Your task to perform on an android device: turn off notifications settings in the gmail app Image 0: 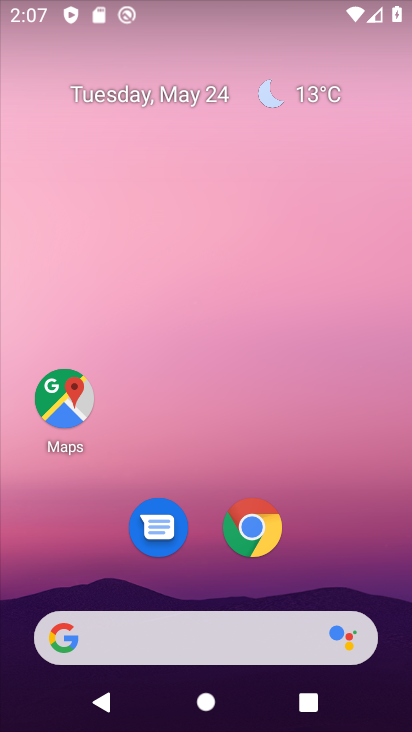
Step 0: drag from (204, 569) to (200, 193)
Your task to perform on an android device: turn off notifications settings in the gmail app Image 1: 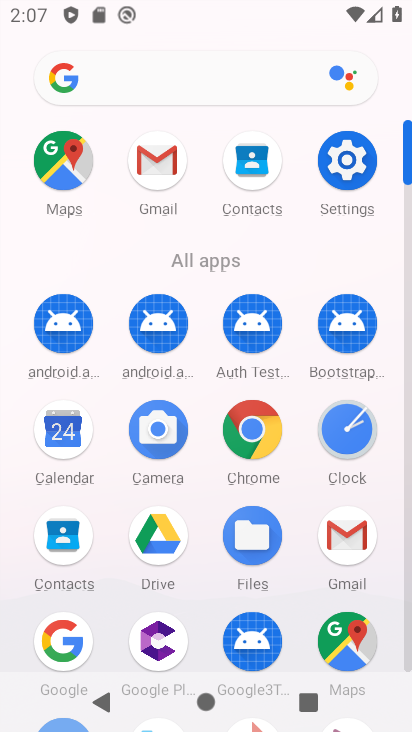
Step 1: click (336, 527)
Your task to perform on an android device: turn off notifications settings in the gmail app Image 2: 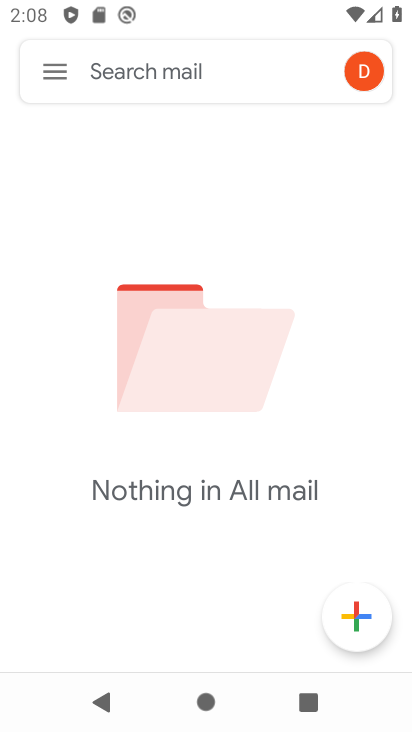
Step 2: click (55, 72)
Your task to perform on an android device: turn off notifications settings in the gmail app Image 3: 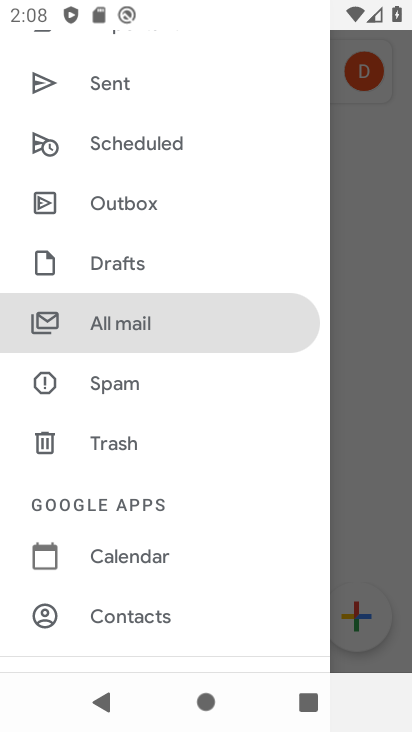
Step 3: drag from (158, 590) to (180, 277)
Your task to perform on an android device: turn off notifications settings in the gmail app Image 4: 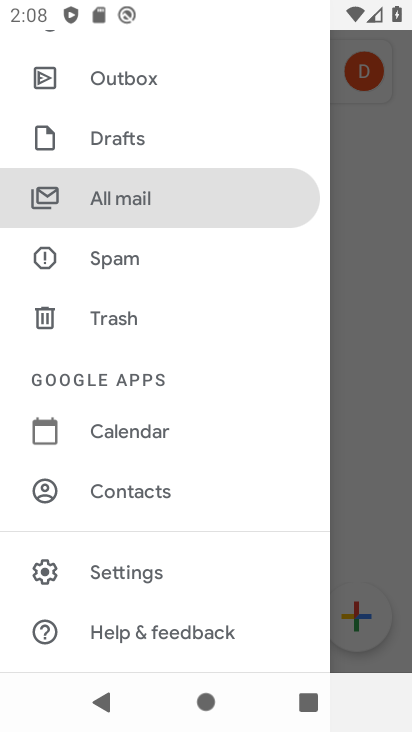
Step 4: click (117, 557)
Your task to perform on an android device: turn off notifications settings in the gmail app Image 5: 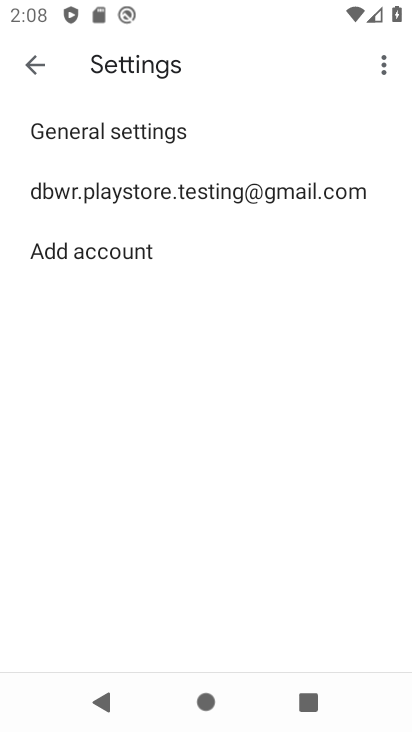
Step 5: click (169, 186)
Your task to perform on an android device: turn off notifications settings in the gmail app Image 6: 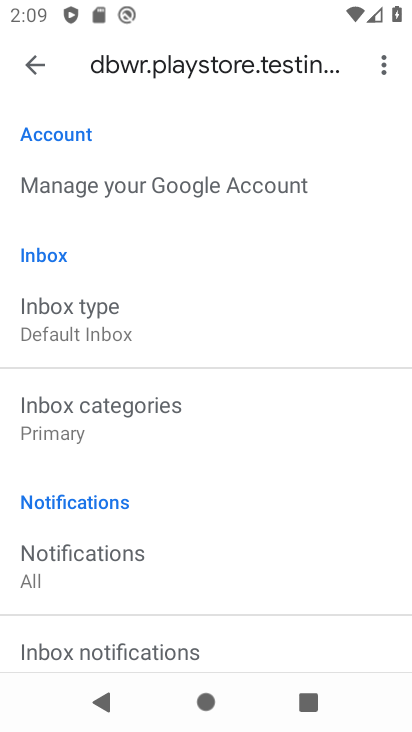
Step 6: drag from (134, 532) to (156, 221)
Your task to perform on an android device: turn off notifications settings in the gmail app Image 7: 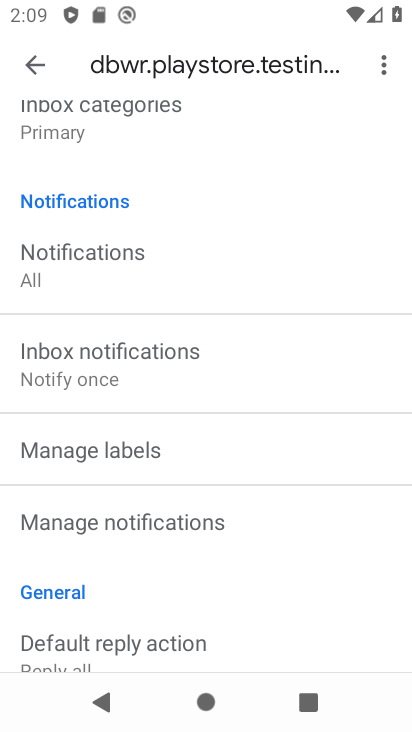
Step 7: drag from (131, 530) to (136, 438)
Your task to perform on an android device: turn off notifications settings in the gmail app Image 8: 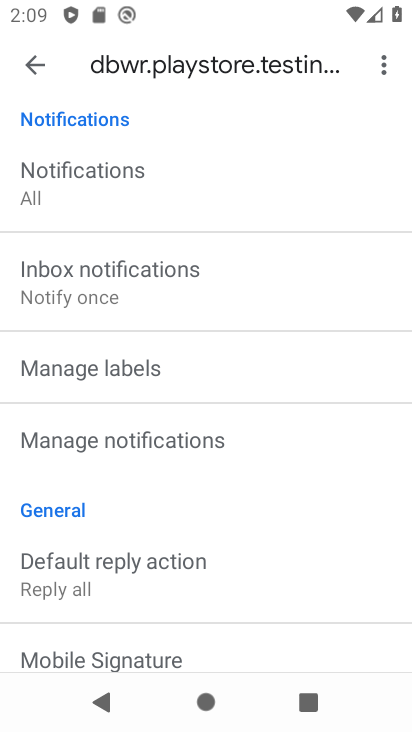
Step 8: click (111, 440)
Your task to perform on an android device: turn off notifications settings in the gmail app Image 9: 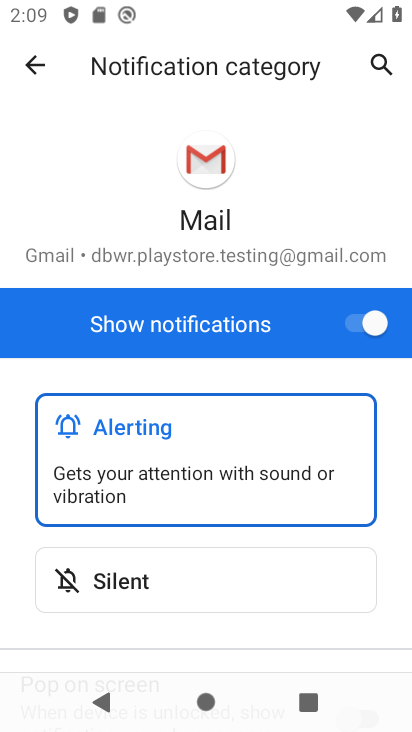
Step 9: click (335, 322)
Your task to perform on an android device: turn off notifications settings in the gmail app Image 10: 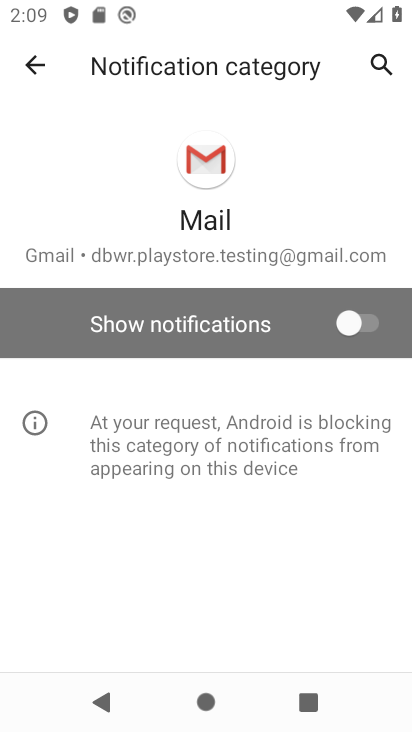
Step 10: task complete